Your task to perform on an android device: Do I have any events this weekend? Image 0: 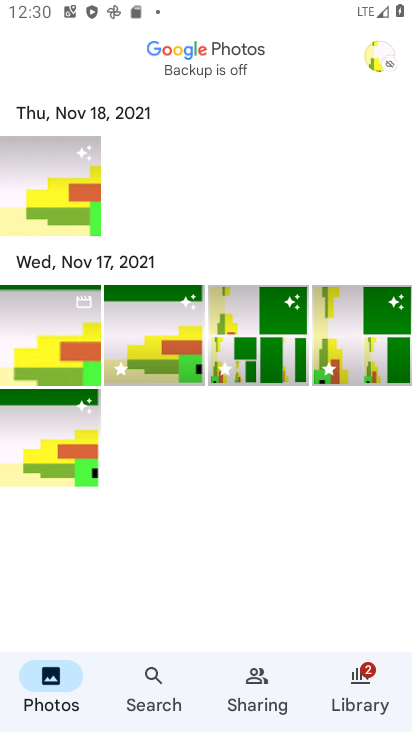
Step 0: press home button
Your task to perform on an android device: Do I have any events this weekend? Image 1: 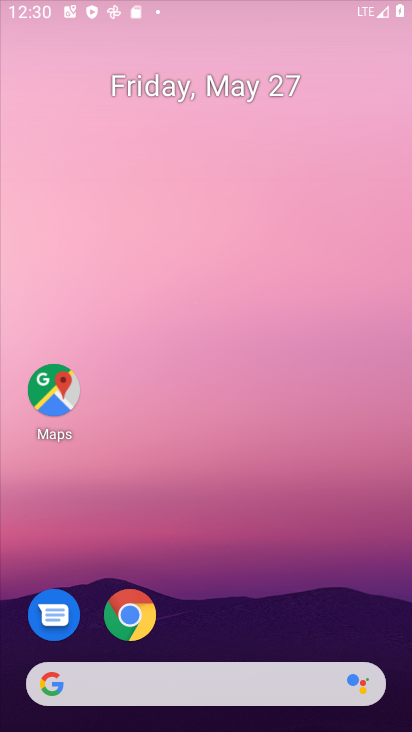
Step 1: drag from (301, 681) to (386, 25)
Your task to perform on an android device: Do I have any events this weekend? Image 2: 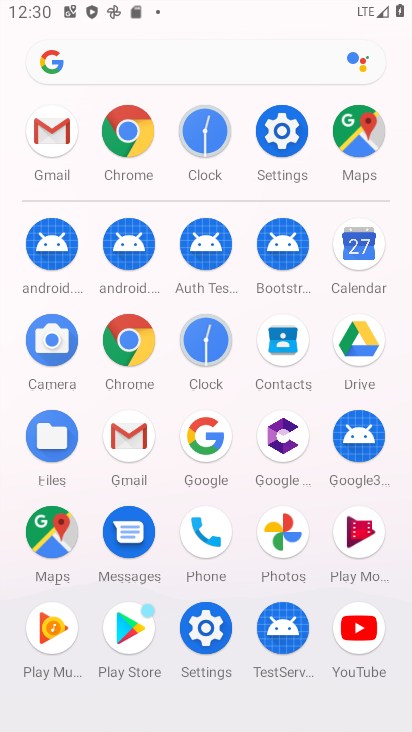
Step 2: click (355, 245)
Your task to perform on an android device: Do I have any events this weekend? Image 3: 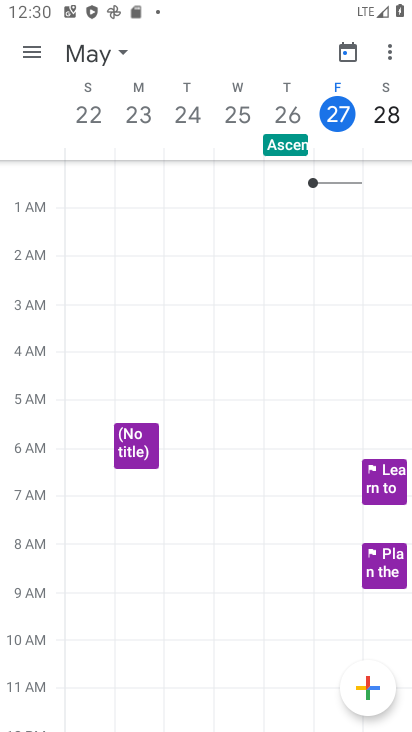
Step 3: click (126, 56)
Your task to perform on an android device: Do I have any events this weekend? Image 4: 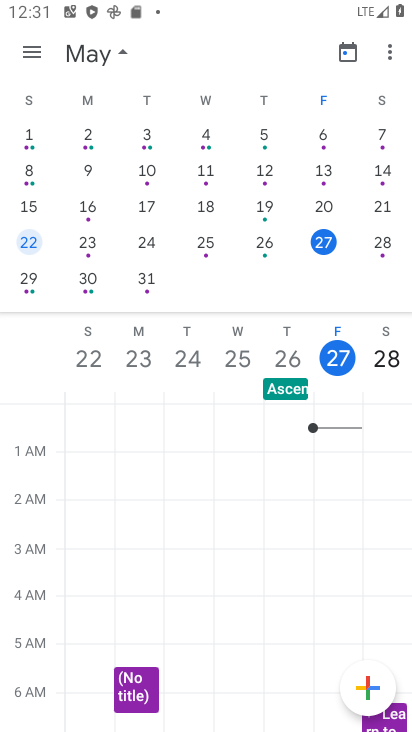
Step 4: click (384, 241)
Your task to perform on an android device: Do I have any events this weekend? Image 5: 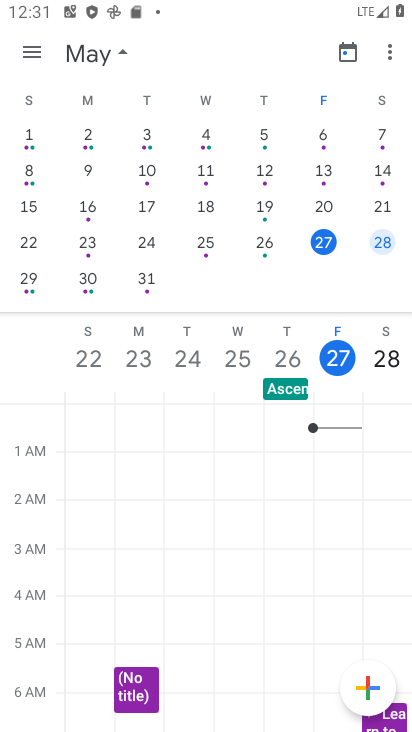
Step 5: task complete